Your task to perform on an android device: Open Google Chrome and click the shortcut for Amazon.com Image 0: 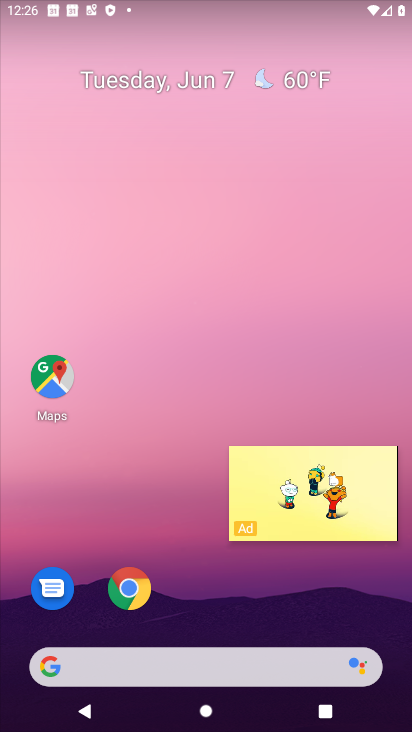
Step 0: click (347, 477)
Your task to perform on an android device: Open Google Chrome and click the shortcut for Amazon.com Image 1: 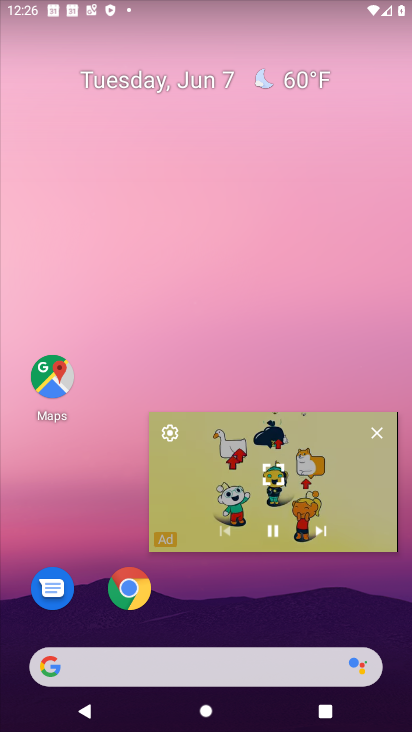
Step 1: click (379, 435)
Your task to perform on an android device: Open Google Chrome and click the shortcut for Amazon.com Image 2: 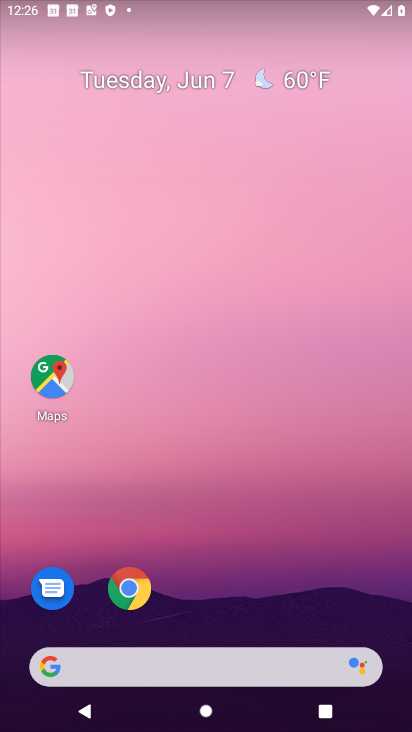
Step 2: click (134, 588)
Your task to perform on an android device: Open Google Chrome and click the shortcut for Amazon.com Image 3: 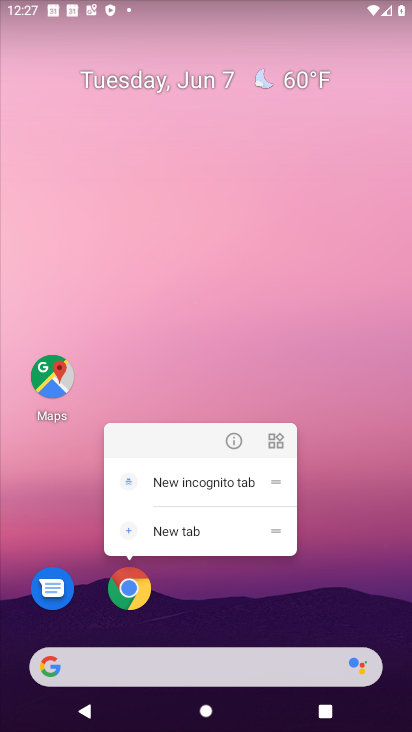
Step 3: click (134, 588)
Your task to perform on an android device: Open Google Chrome and click the shortcut for Amazon.com Image 4: 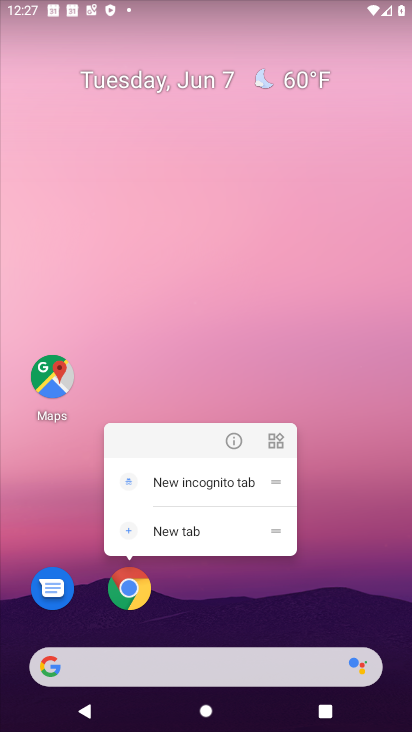
Step 4: click (134, 588)
Your task to perform on an android device: Open Google Chrome and click the shortcut for Amazon.com Image 5: 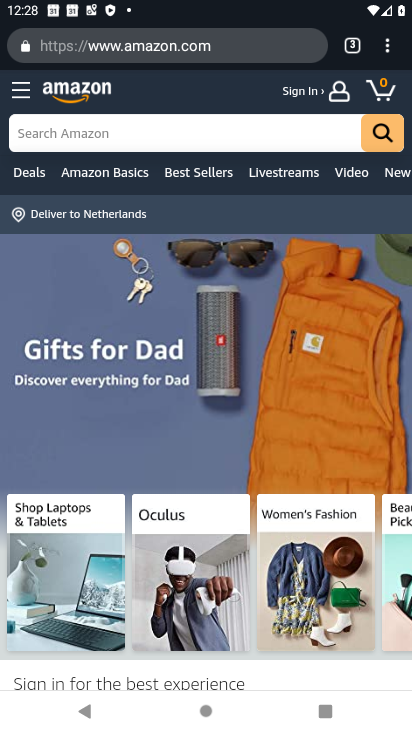
Step 5: task complete